Your task to perform on an android device: Go to wifi settings Image 0: 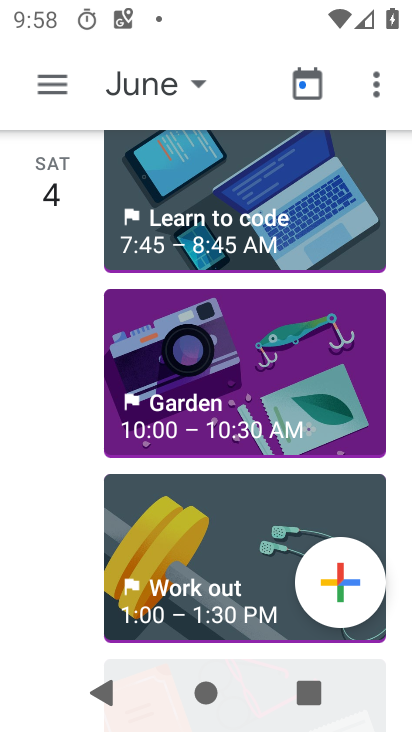
Step 0: press home button
Your task to perform on an android device: Go to wifi settings Image 1: 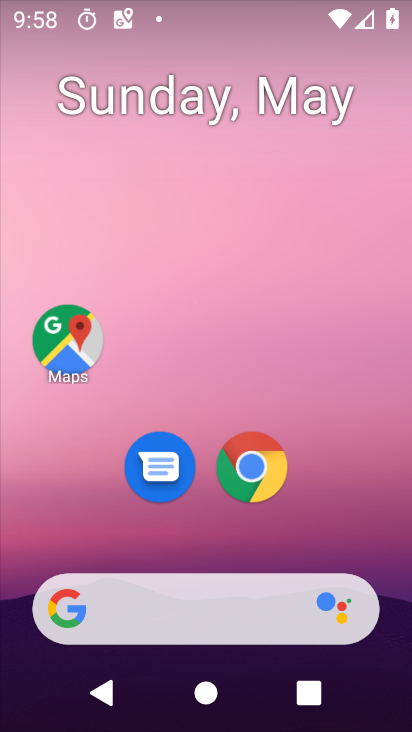
Step 1: drag from (197, 550) to (204, 233)
Your task to perform on an android device: Go to wifi settings Image 2: 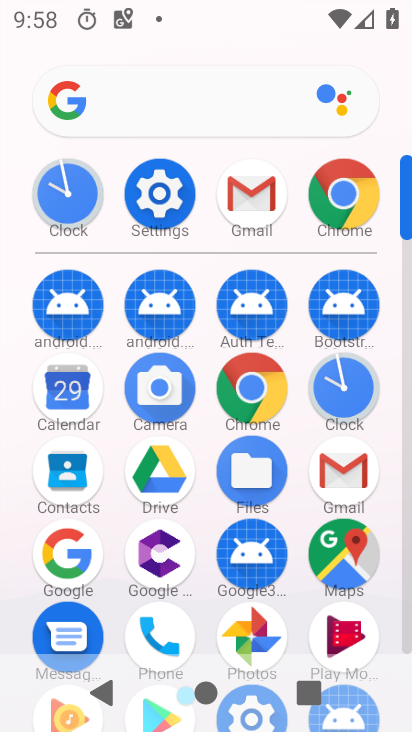
Step 2: click (159, 176)
Your task to perform on an android device: Go to wifi settings Image 3: 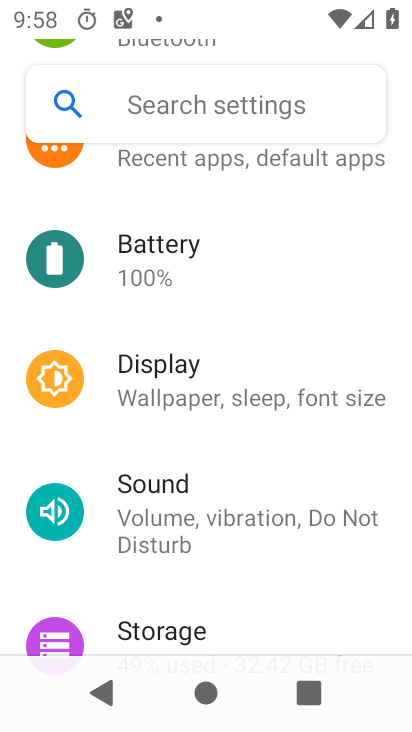
Step 3: drag from (203, 242) to (203, 561)
Your task to perform on an android device: Go to wifi settings Image 4: 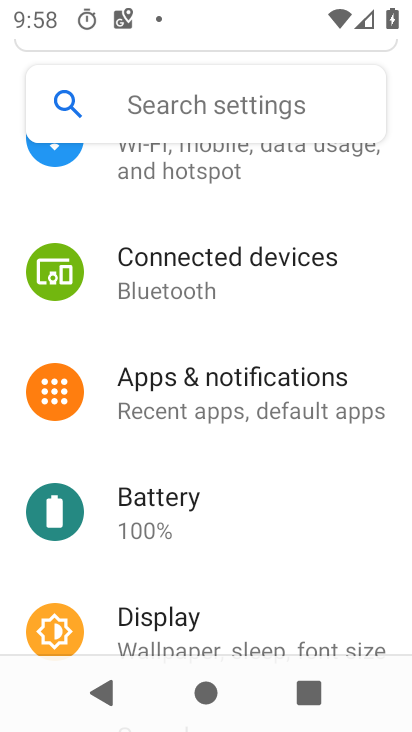
Step 4: drag from (192, 246) to (195, 505)
Your task to perform on an android device: Go to wifi settings Image 5: 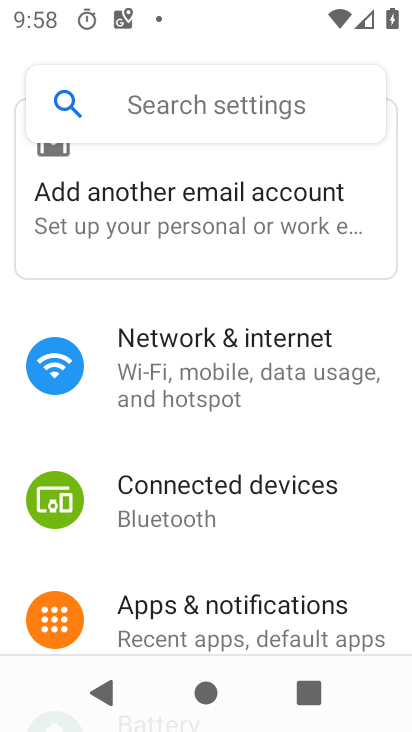
Step 5: click (178, 348)
Your task to perform on an android device: Go to wifi settings Image 6: 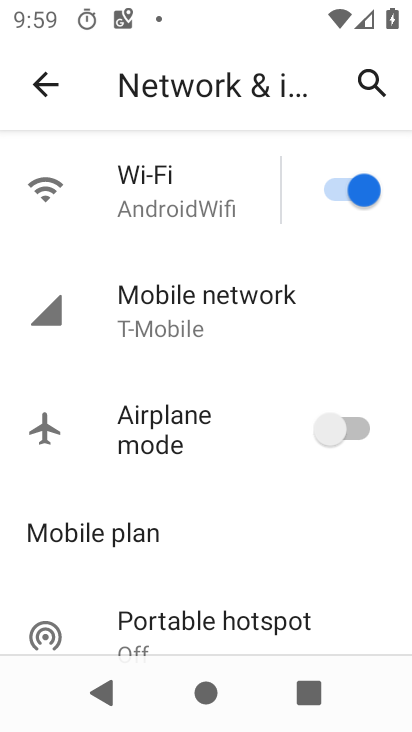
Step 6: click (129, 196)
Your task to perform on an android device: Go to wifi settings Image 7: 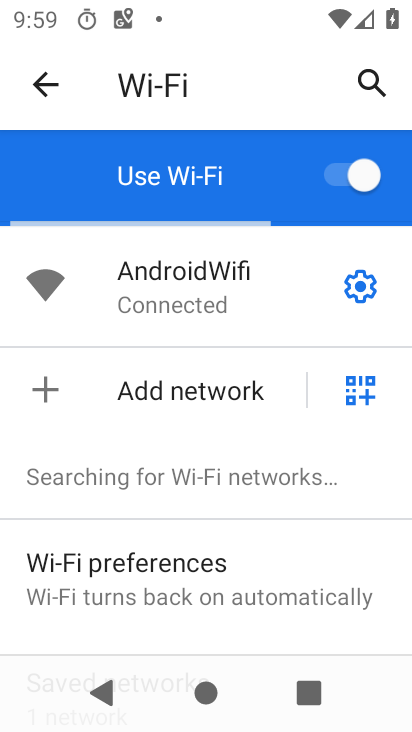
Step 7: task complete